Your task to perform on an android device: toggle pop-ups in chrome Image 0: 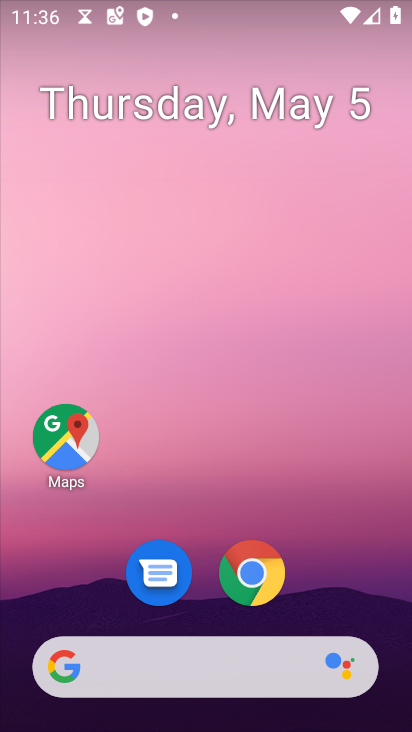
Step 0: drag from (310, 591) to (352, 196)
Your task to perform on an android device: toggle pop-ups in chrome Image 1: 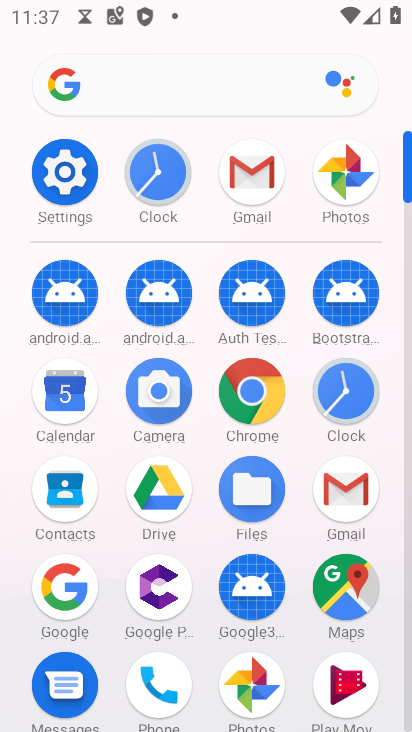
Step 1: click (248, 393)
Your task to perform on an android device: toggle pop-ups in chrome Image 2: 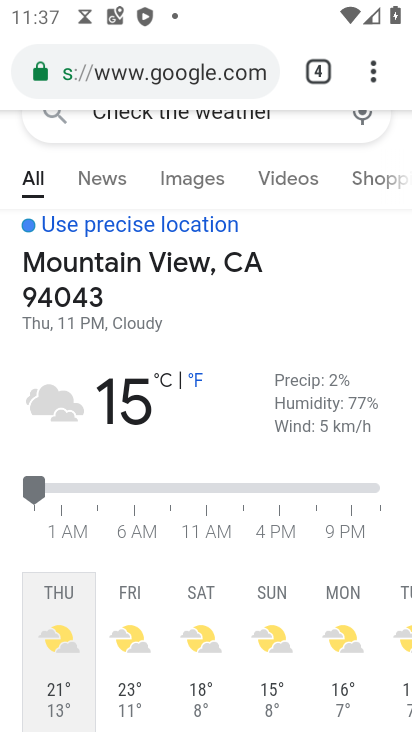
Step 2: click (359, 75)
Your task to perform on an android device: toggle pop-ups in chrome Image 3: 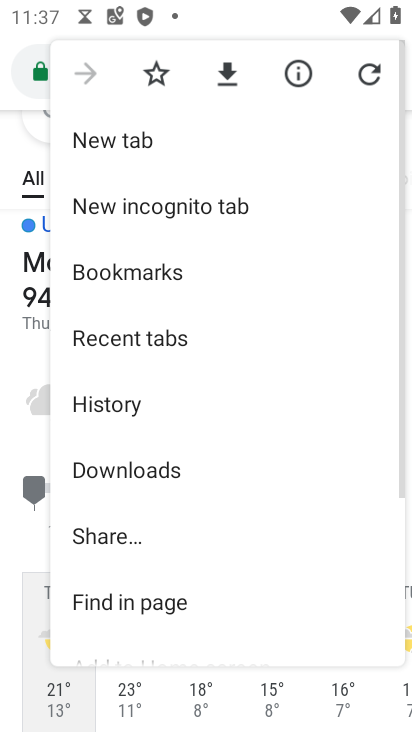
Step 3: drag from (179, 587) to (229, 224)
Your task to perform on an android device: toggle pop-ups in chrome Image 4: 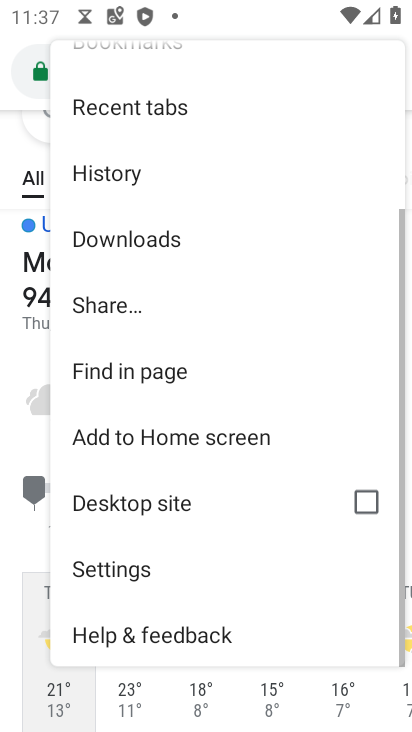
Step 4: click (154, 573)
Your task to perform on an android device: toggle pop-ups in chrome Image 5: 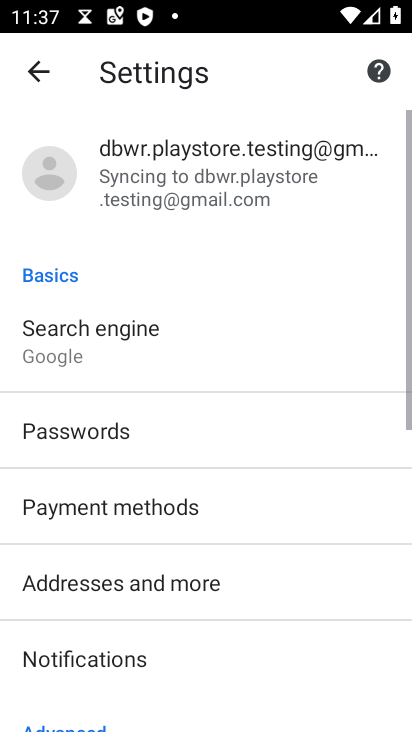
Step 5: drag from (164, 642) to (224, 257)
Your task to perform on an android device: toggle pop-ups in chrome Image 6: 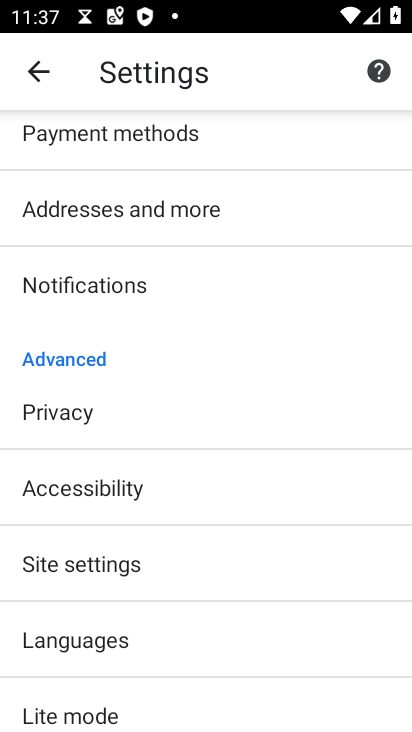
Step 6: click (86, 573)
Your task to perform on an android device: toggle pop-ups in chrome Image 7: 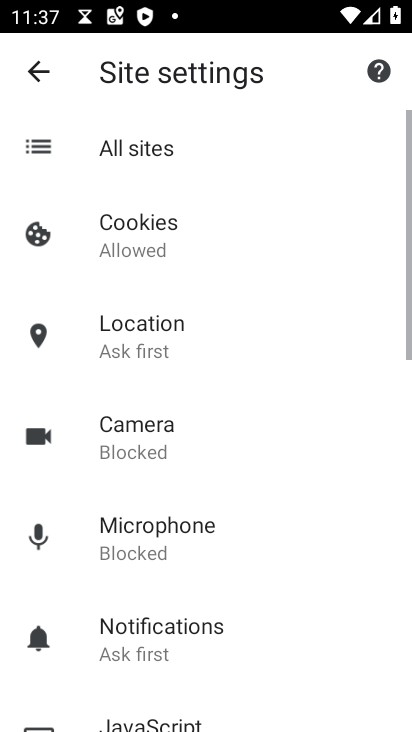
Step 7: drag from (194, 648) to (273, 241)
Your task to perform on an android device: toggle pop-ups in chrome Image 8: 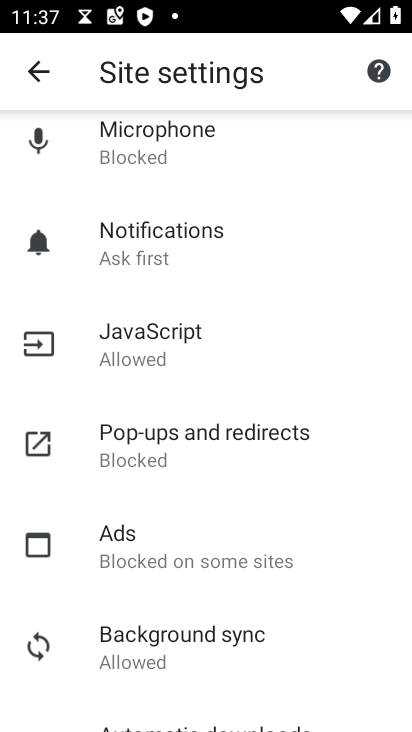
Step 8: click (199, 464)
Your task to perform on an android device: toggle pop-ups in chrome Image 9: 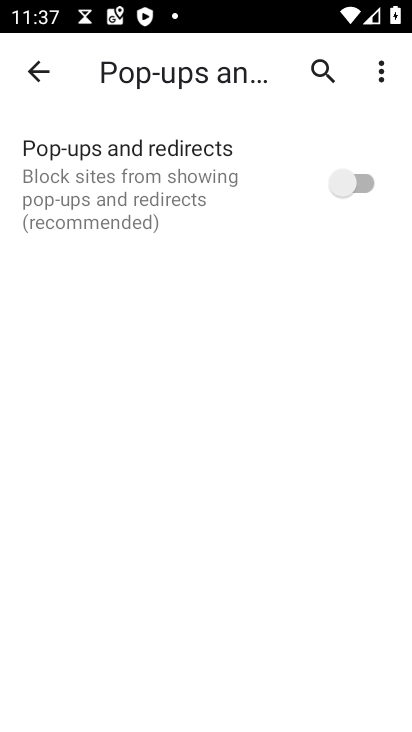
Step 9: click (341, 184)
Your task to perform on an android device: toggle pop-ups in chrome Image 10: 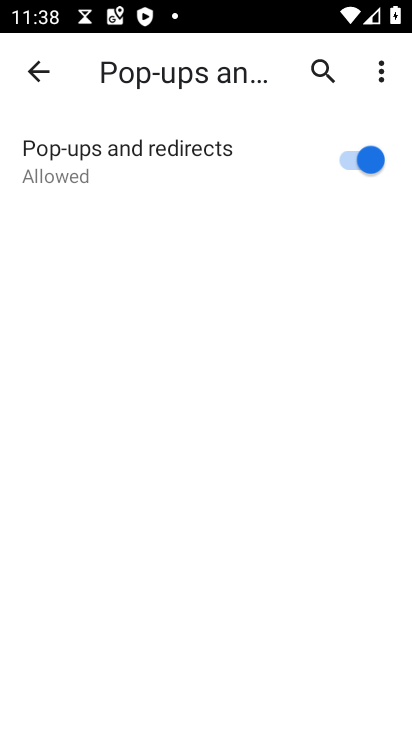
Step 10: task complete